Your task to perform on an android device: Go to Reddit.com Image 0: 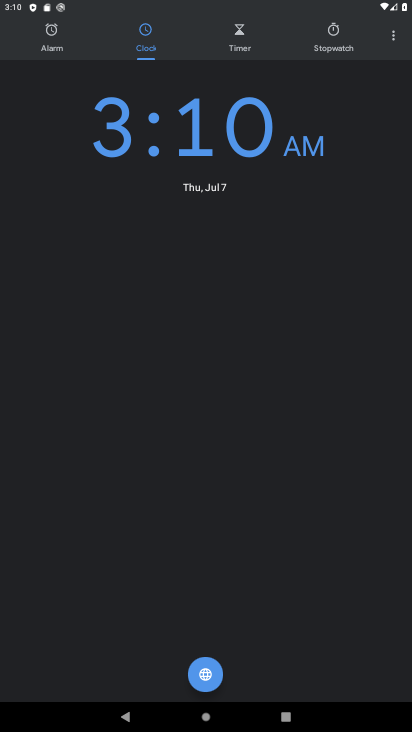
Step 0: press home button
Your task to perform on an android device: Go to Reddit.com Image 1: 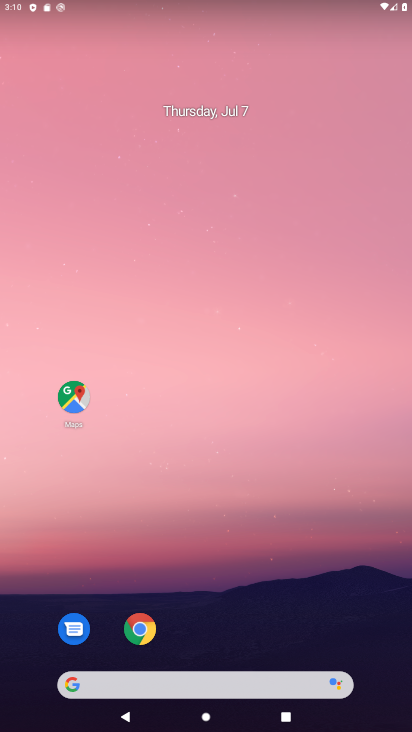
Step 1: click (123, 687)
Your task to perform on an android device: Go to Reddit.com Image 2: 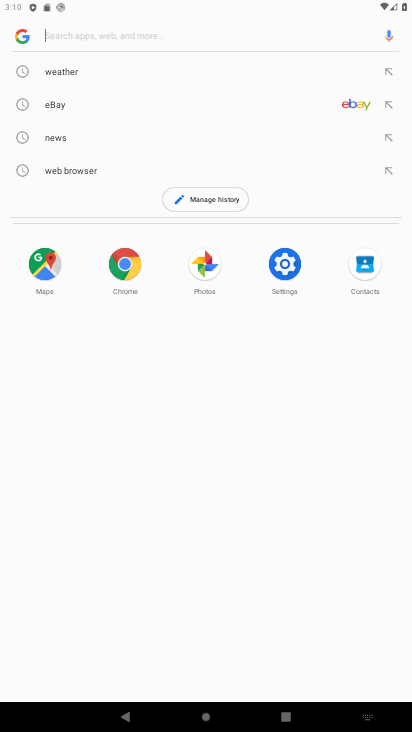
Step 2: type "Reddit.com"
Your task to perform on an android device: Go to Reddit.com Image 3: 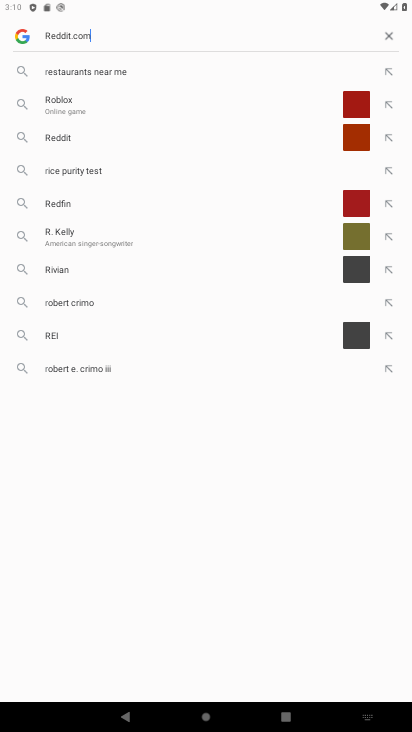
Step 3: type ""
Your task to perform on an android device: Go to Reddit.com Image 4: 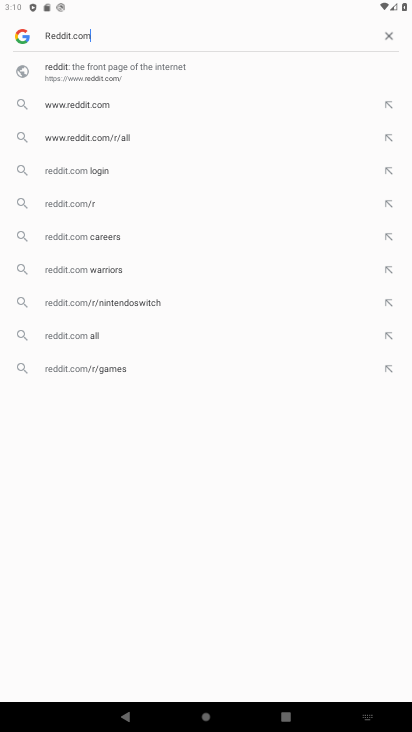
Step 4: click (89, 104)
Your task to perform on an android device: Go to Reddit.com Image 5: 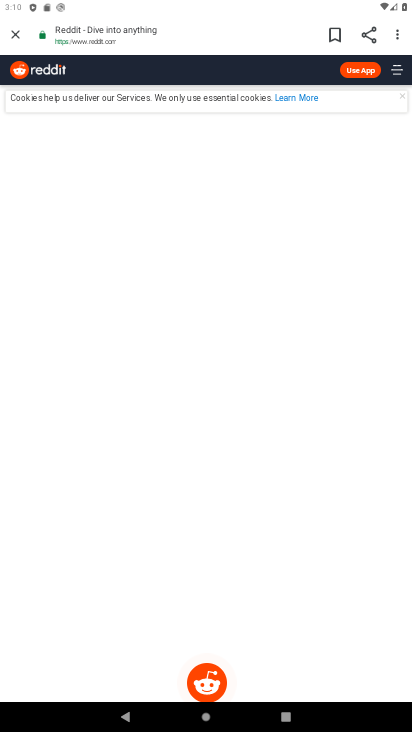
Step 5: task complete